Your task to perform on an android device: set default search engine in the chrome app Image 0: 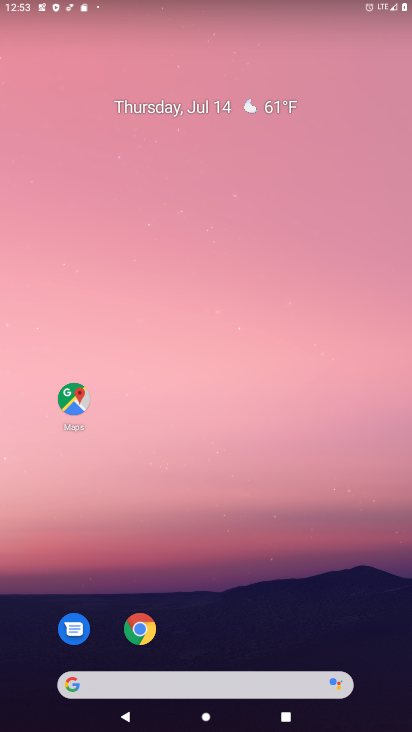
Step 0: click (137, 630)
Your task to perform on an android device: set default search engine in the chrome app Image 1: 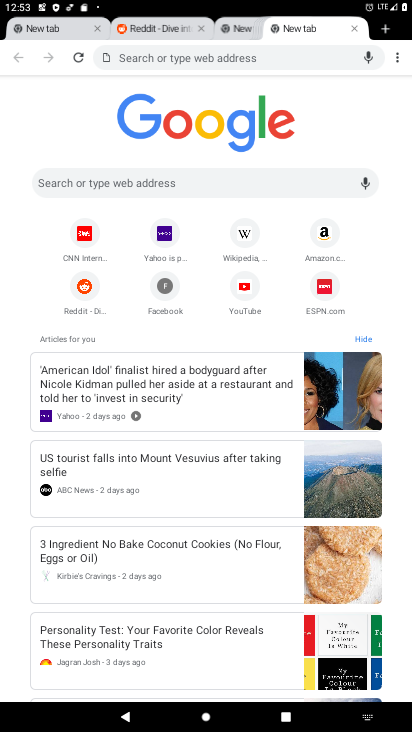
Step 1: click (394, 59)
Your task to perform on an android device: set default search engine in the chrome app Image 2: 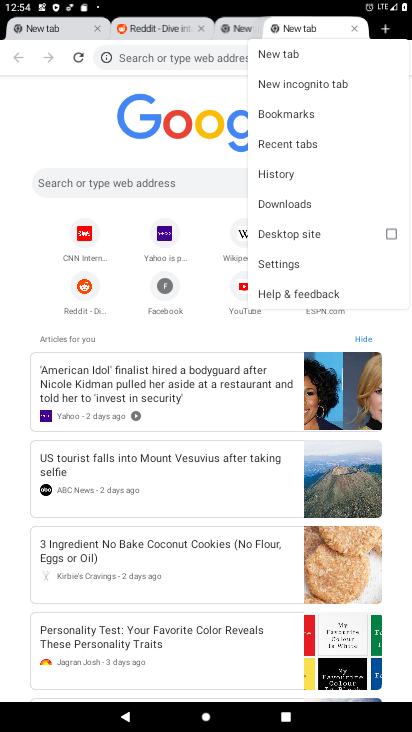
Step 2: click (276, 259)
Your task to perform on an android device: set default search engine in the chrome app Image 3: 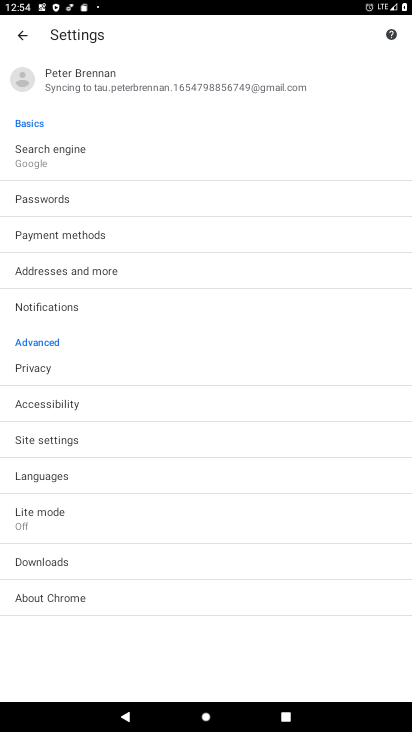
Step 3: click (40, 148)
Your task to perform on an android device: set default search engine in the chrome app Image 4: 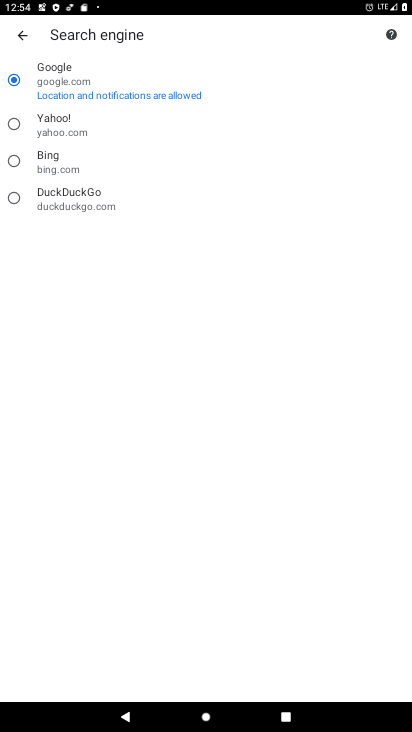
Step 4: click (43, 124)
Your task to perform on an android device: set default search engine in the chrome app Image 5: 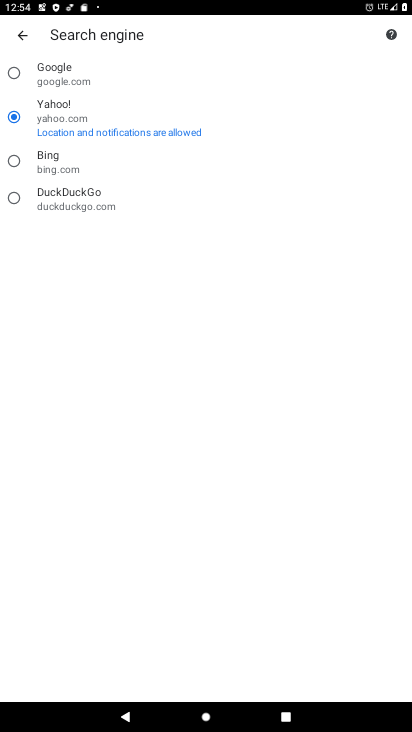
Step 5: task complete